Your task to perform on an android device: Where can I buy a nice beach towel? Image 0: 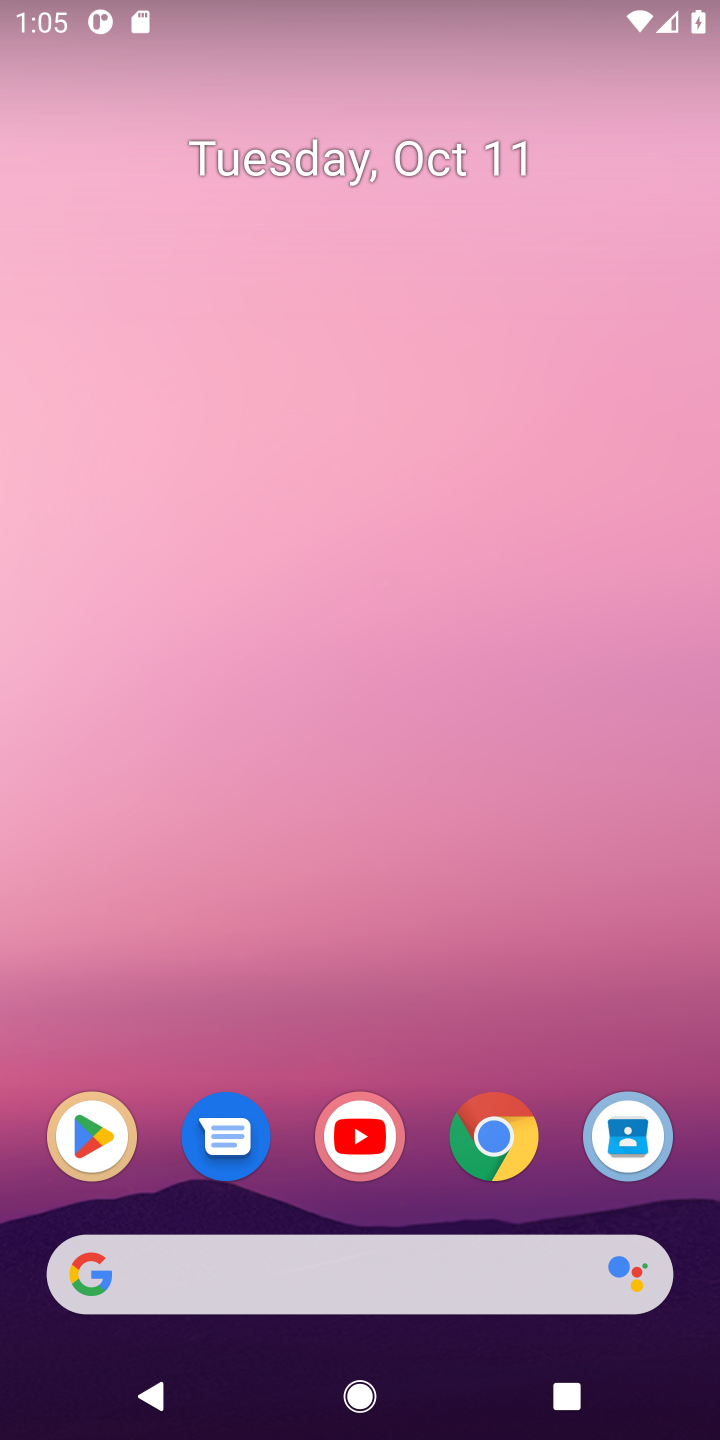
Step 0: press home button
Your task to perform on an android device: Where can I buy a nice beach towel? Image 1: 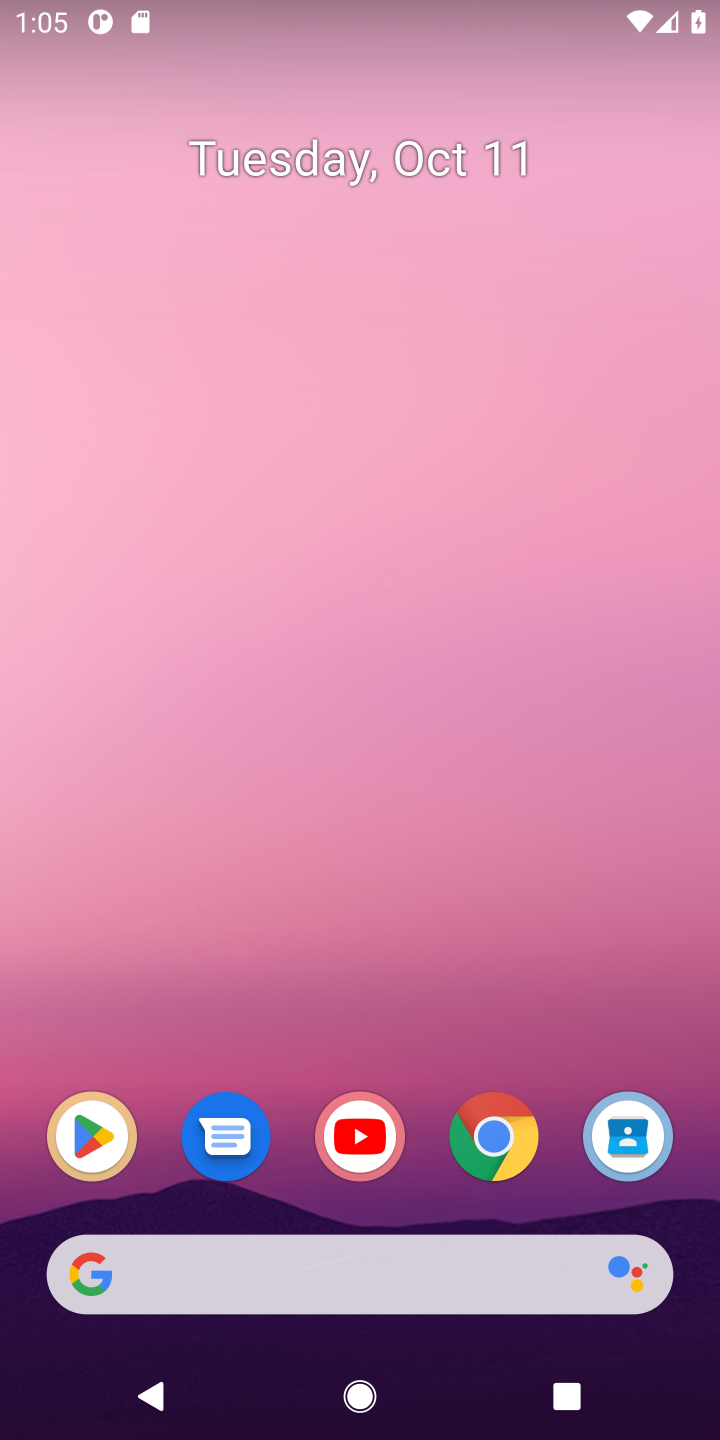
Step 1: click (344, 1277)
Your task to perform on an android device: Where can I buy a nice beach towel? Image 2: 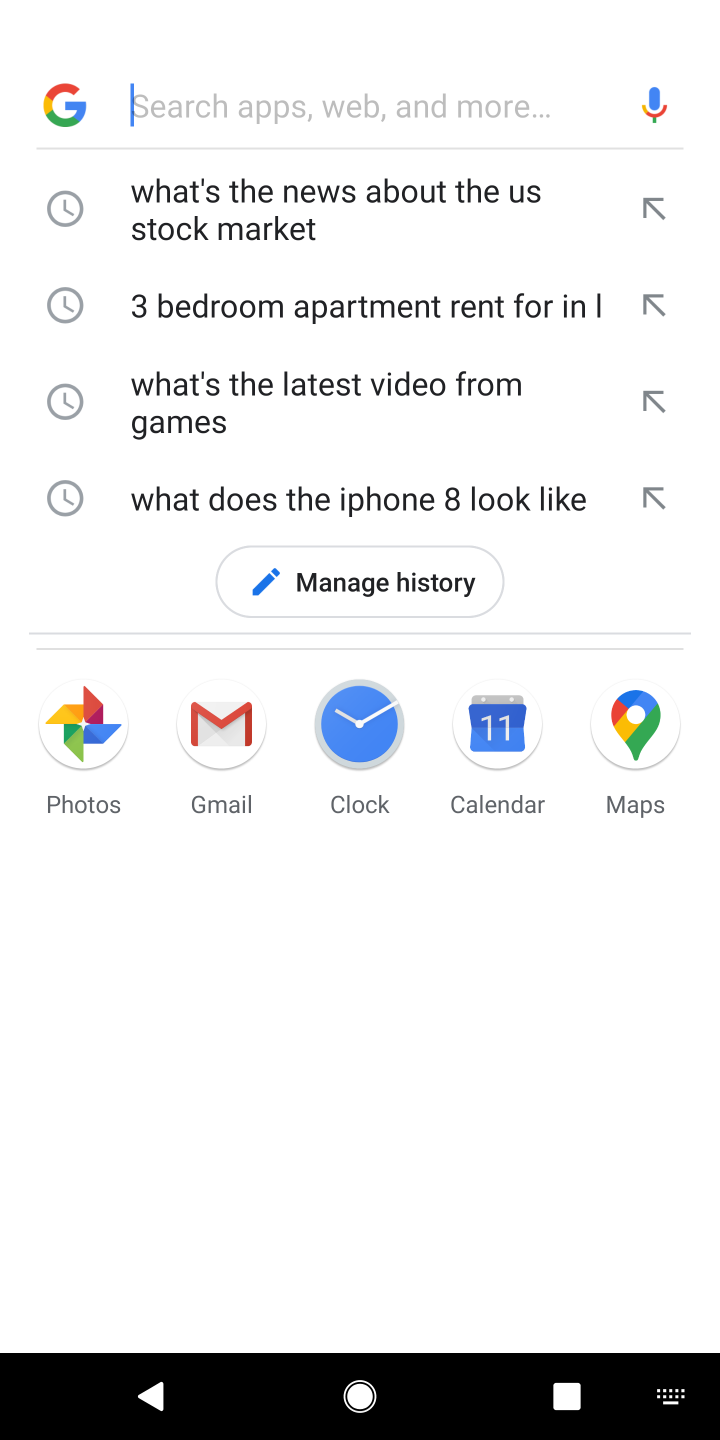
Step 2: type "Where can I buy a nice beach towel"
Your task to perform on an android device: Where can I buy a nice beach towel? Image 3: 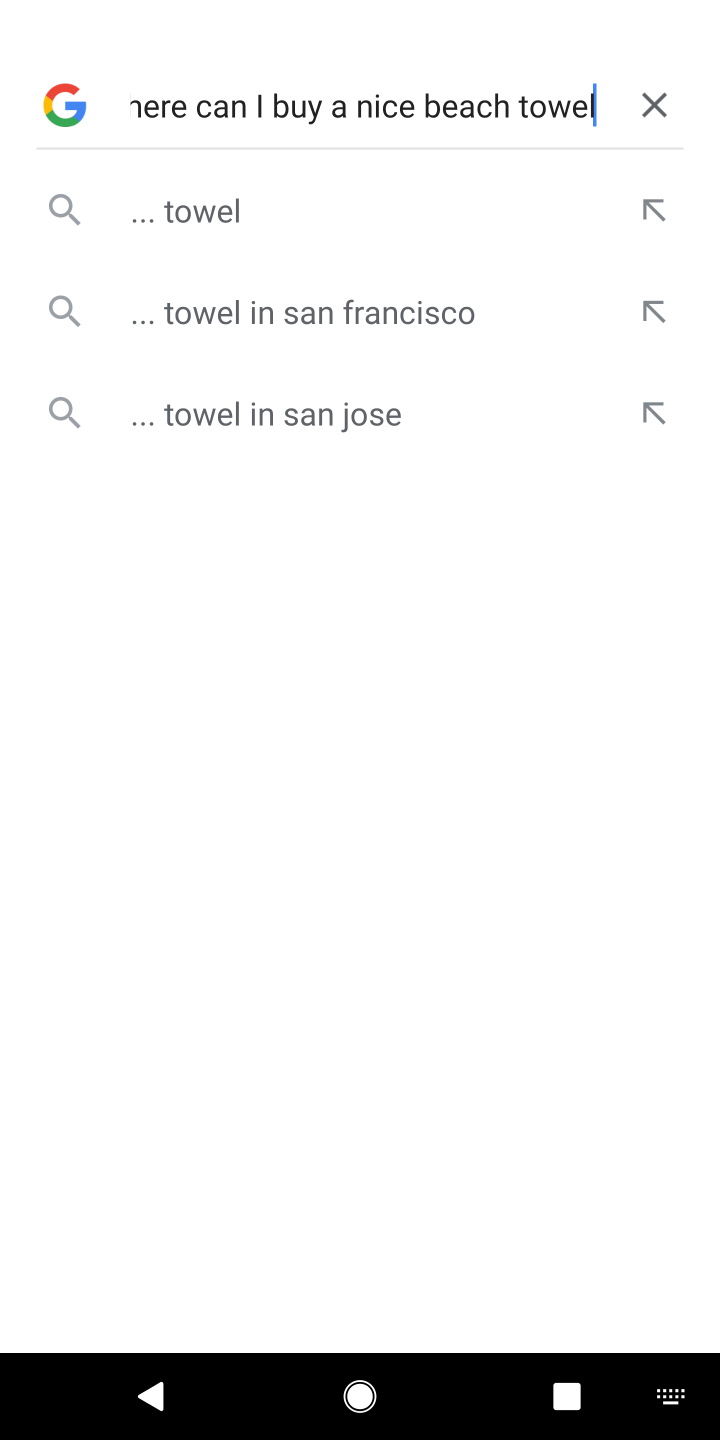
Step 3: press enter
Your task to perform on an android device: Where can I buy a nice beach towel? Image 4: 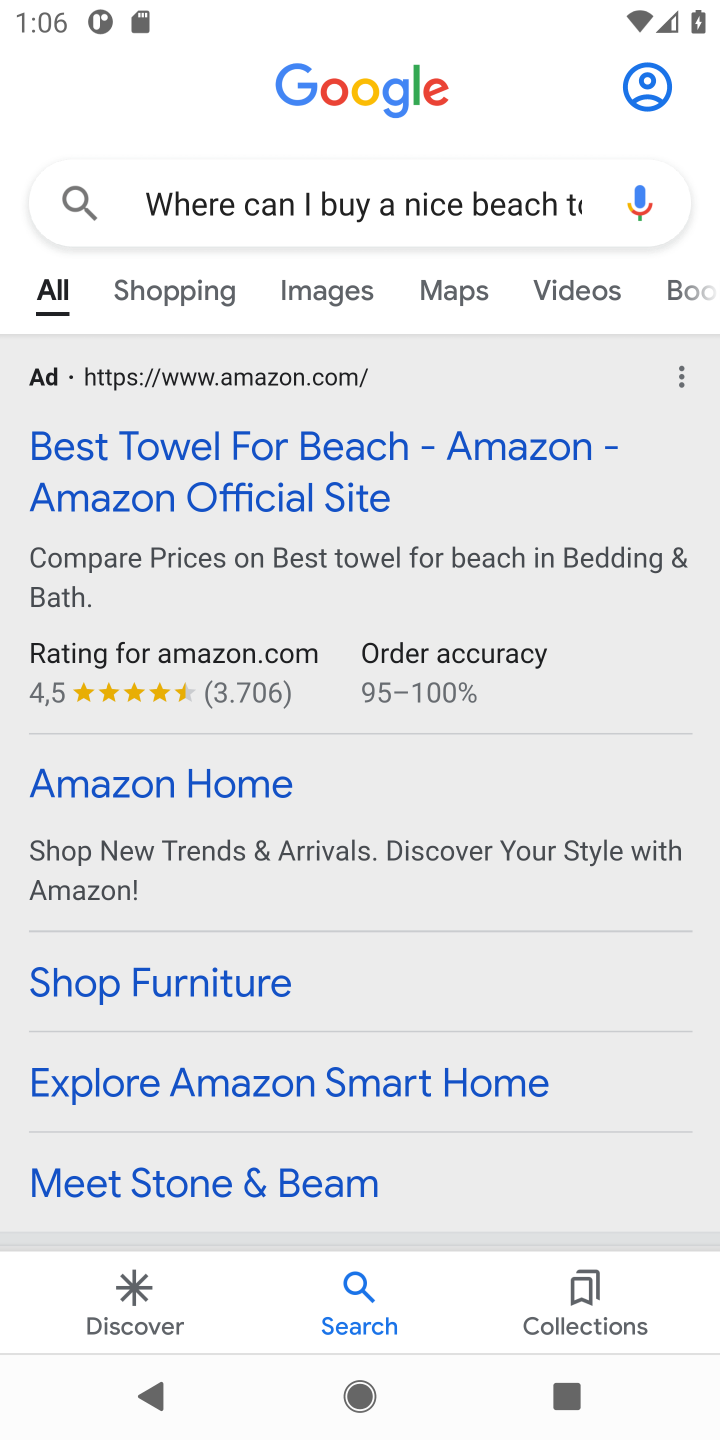
Step 4: click (313, 473)
Your task to perform on an android device: Where can I buy a nice beach towel? Image 5: 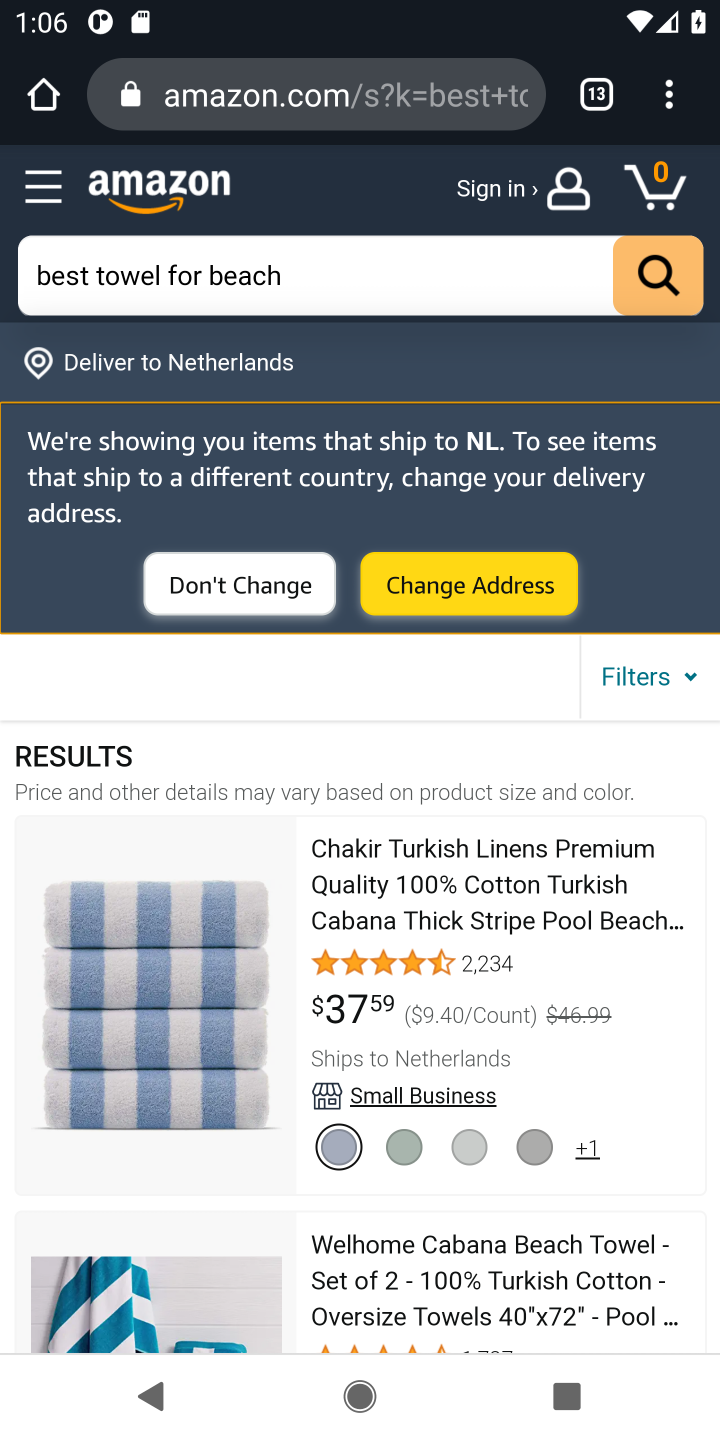
Step 5: task complete